Your task to perform on an android device: What's on my calendar tomorrow? Image 0: 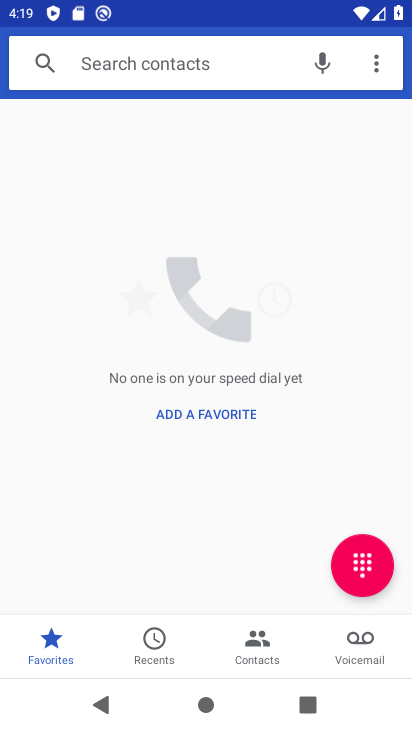
Step 0: press back button
Your task to perform on an android device: What's on my calendar tomorrow? Image 1: 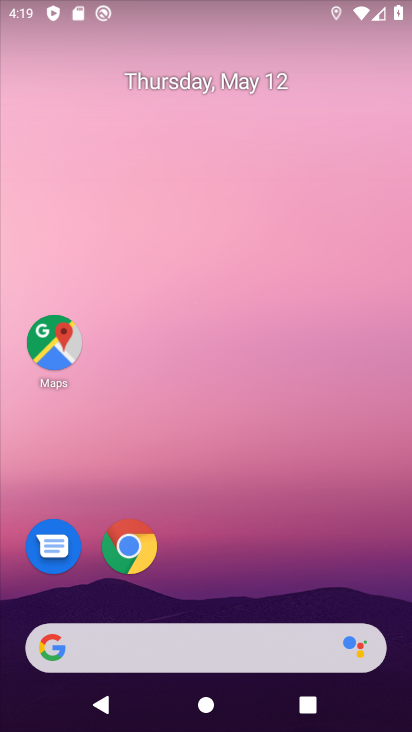
Step 1: drag from (273, 541) to (280, 5)
Your task to perform on an android device: What's on my calendar tomorrow? Image 2: 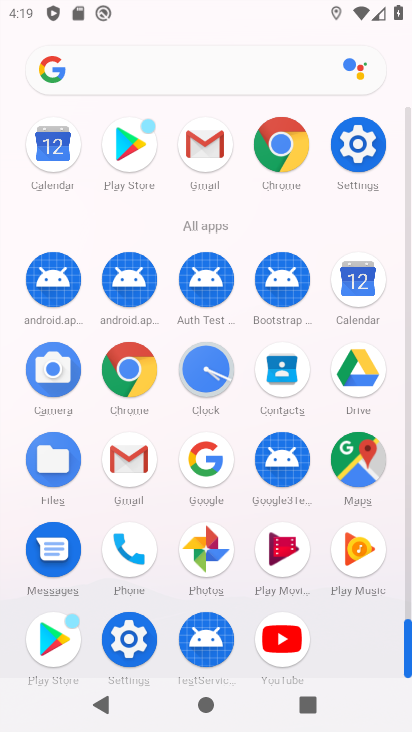
Step 2: drag from (6, 515) to (14, 251)
Your task to perform on an android device: What's on my calendar tomorrow? Image 3: 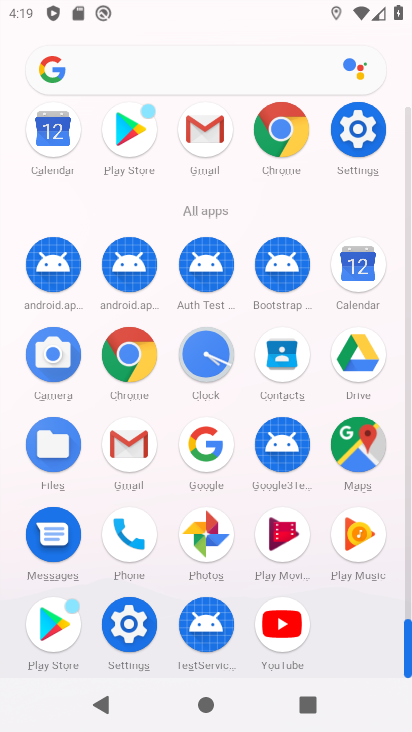
Step 3: click (360, 261)
Your task to perform on an android device: What's on my calendar tomorrow? Image 4: 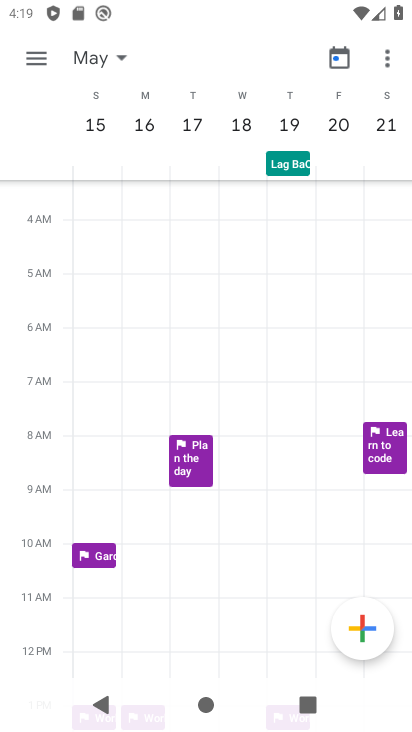
Step 4: click (340, 60)
Your task to perform on an android device: What's on my calendar tomorrow? Image 5: 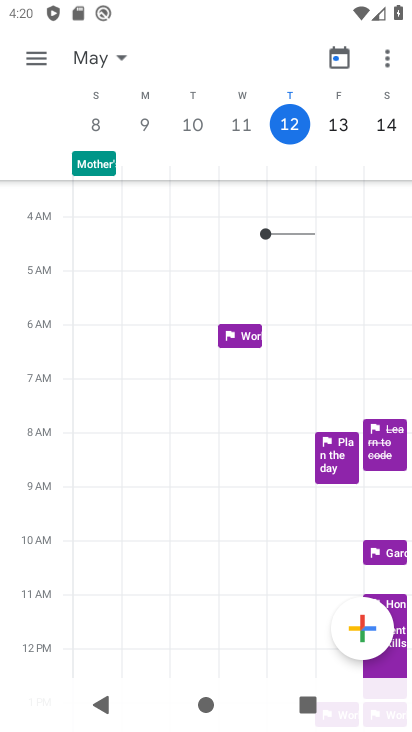
Step 5: click (325, 120)
Your task to perform on an android device: What's on my calendar tomorrow? Image 6: 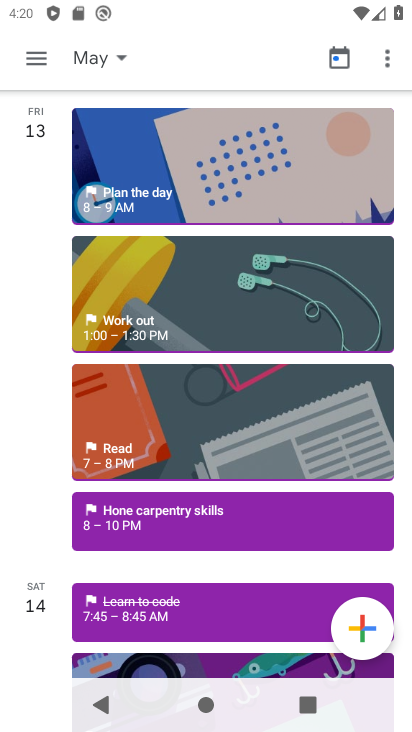
Step 6: task complete